Your task to perform on an android device: open device folders in google photos Image 0: 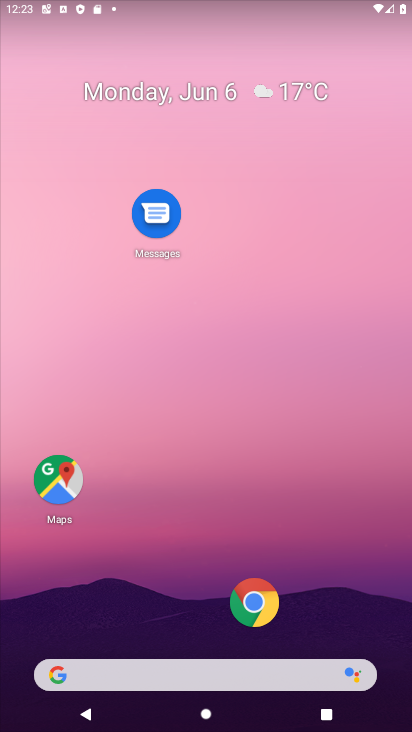
Step 0: drag from (332, 595) to (243, 136)
Your task to perform on an android device: open device folders in google photos Image 1: 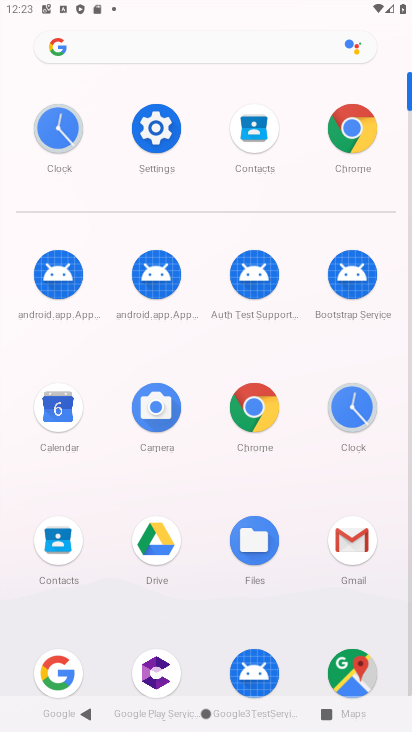
Step 1: drag from (305, 521) to (315, 244)
Your task to perform on an android device: open device folders in google photos Image 2: 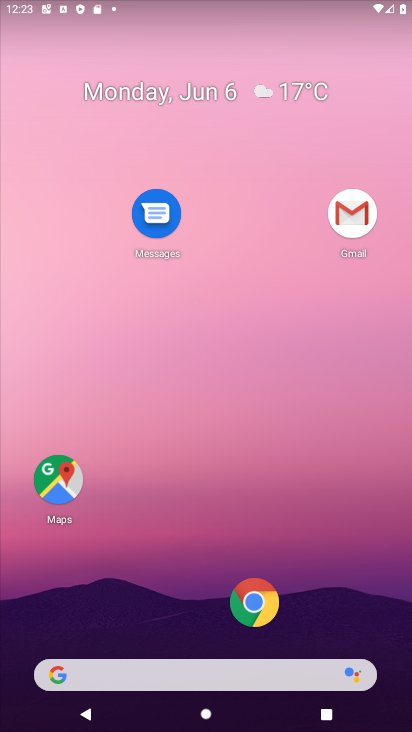
Step 2: click (285, 473)
Your task to perform on an android device: open device folders in google photos Image 3: 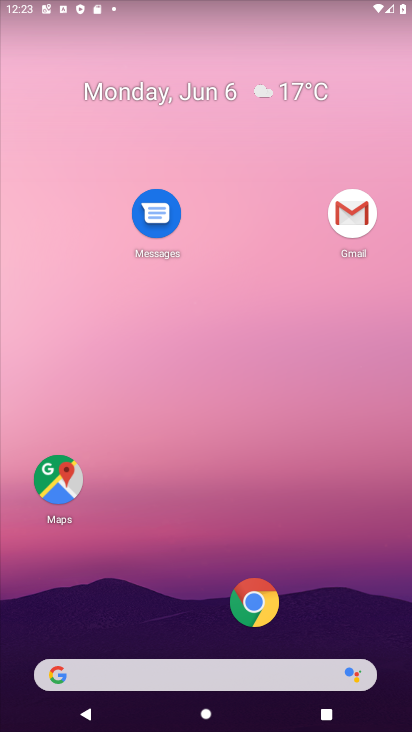
Step 3: drag from (354, 609) to (235, 116)
Your task to perform on an android device: open device folders in google photos Image 4: 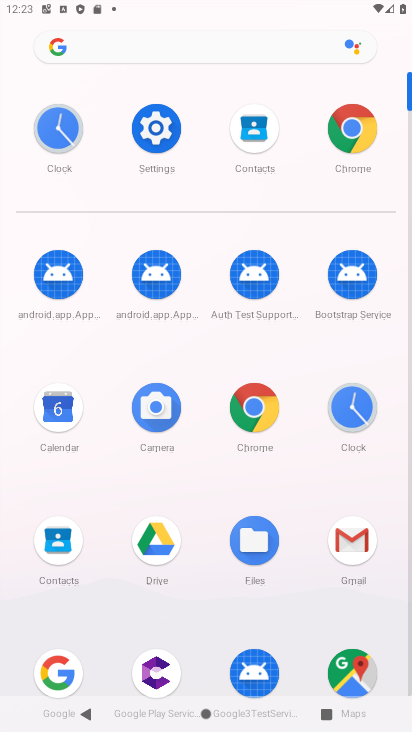
Step 4: drag from (204, 601) to (201, 268)
Your task to perform on an android device: open device folders in google photos Image 5: 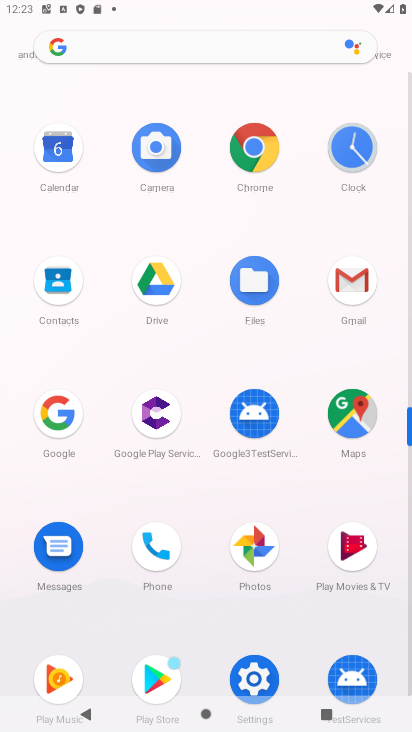
Step 5: click (263, 548)
Your task to perform on an android device: open device folders in google photos Image 6: 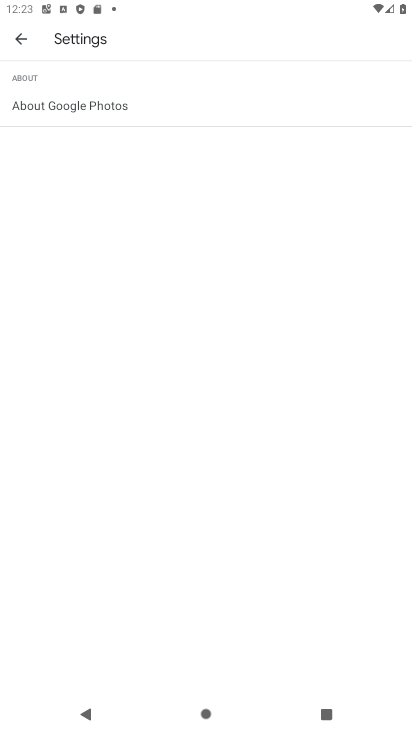
Step 6: click (30, 49)
Your task to perform on an android device: open device folders in google photos Image 7: 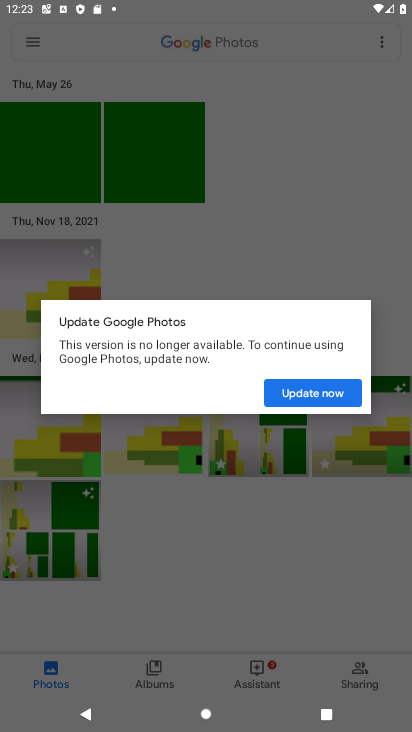
Step 7: click (298, 394)
Your task to perform on an android device: open device folders in google photos Image 8: 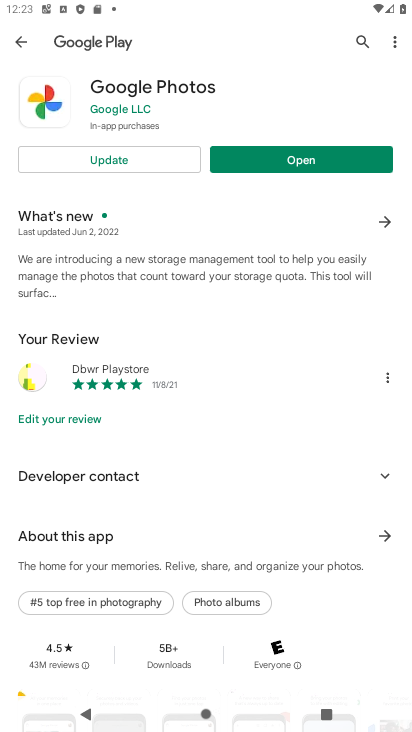
Step 8: click (154, 165)
Your task to perform on an android device: open device folders in google photos Image 9: 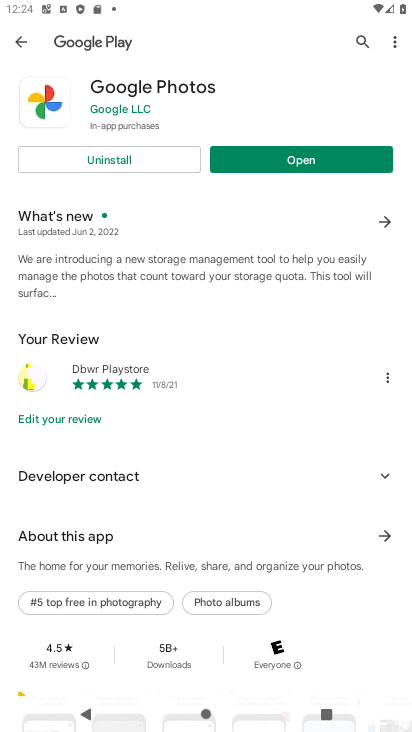
Step 9: click (295, 170)
Your task to perform on an android device: open device folders in google photos Image 10: 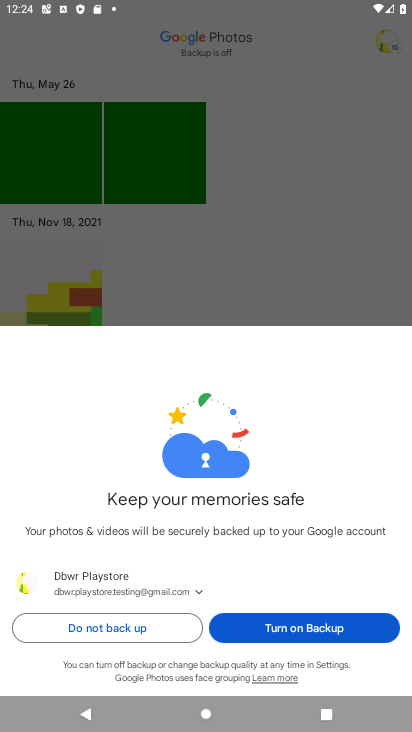
Step 10: click (257, 626)
Your task to perform on an android device: open device folders in google photos Image 11: 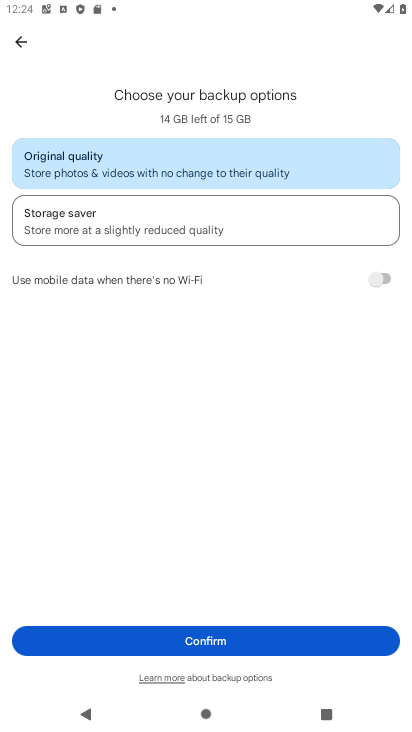
Step 11: click (191, 632)
Your task to perform on an android device: open device folders in google photos Image 12: 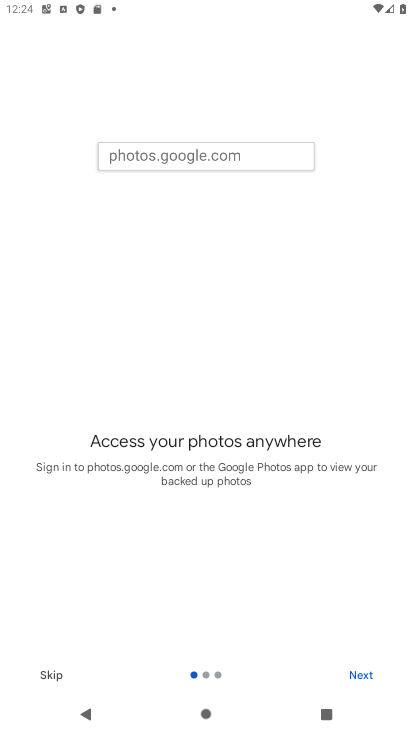
Step 12: click (63, 673)
Your task to perform on an android device: open device folders in google photos Image 13: 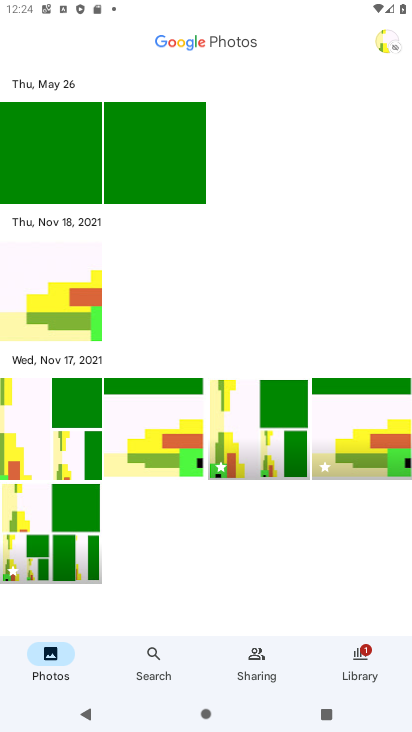
Step 13: click (360, 668)
Your task to perform on an android device: open device folders in google photos Image 14: 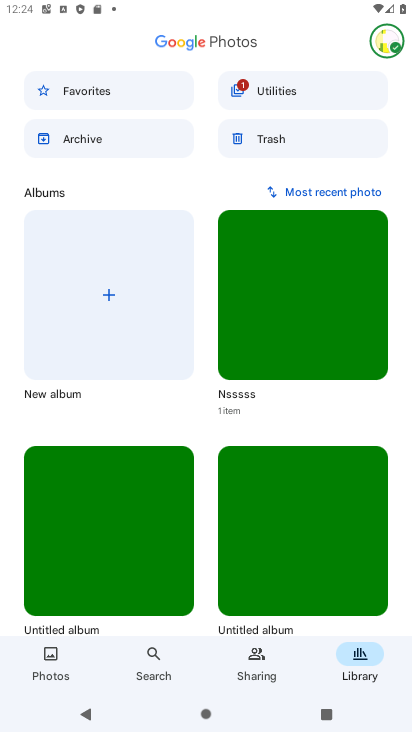
Step 14: task complete